Your task to perform on an android device: Go to CNN.com Image 0: 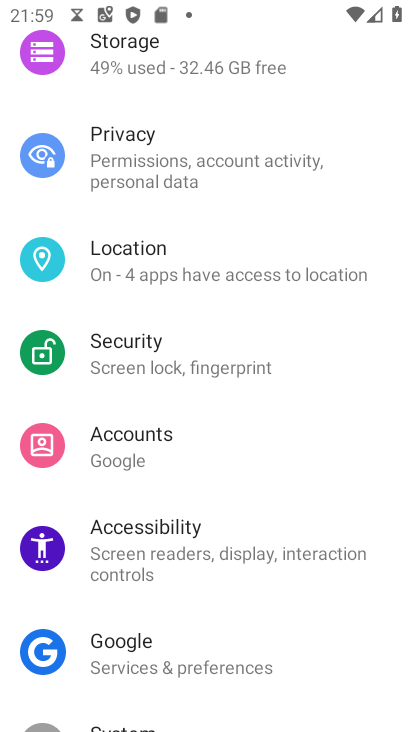
Step 0: drag from (205, 671) to (189, 252)
Your task to perform on an android device: Go to CNN.com Image 1: 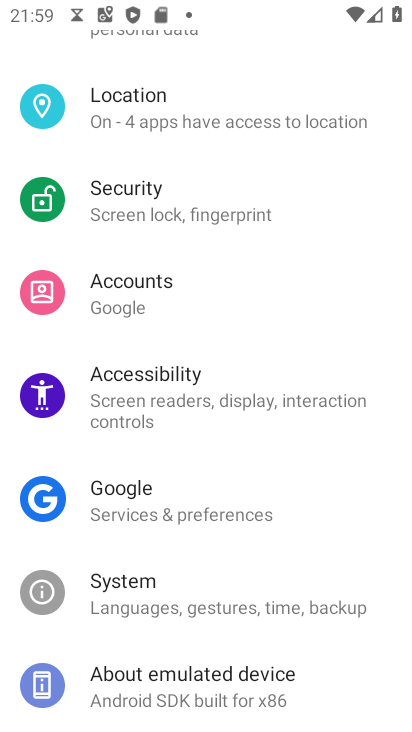
Step 1: press home button
Your task to perform on an android device: Go to CNN.com Image 2: 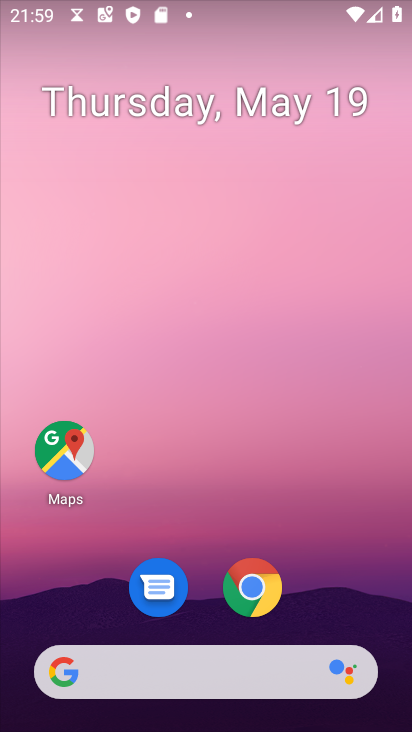
Step 2: click (253, 591)
Your task to perform on an android device: Go to CNN.com Image 3: 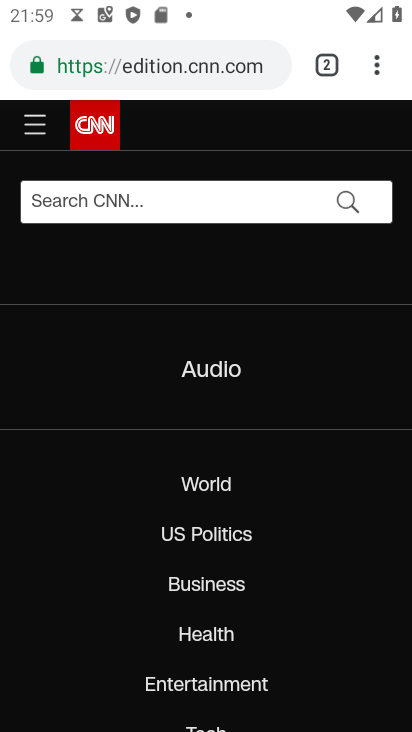
Step 3: task complete